Your task to perform on an android device: What's the weather today? Image 0: 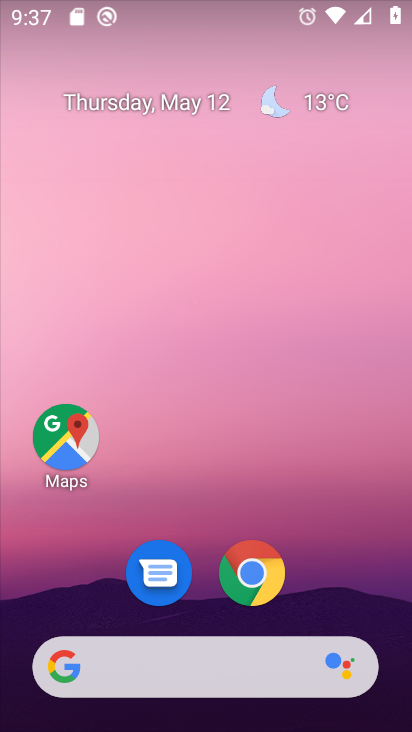
Step 0: click (310, 103)
Your task to perform on an android device: What's the weather today? Image 1: 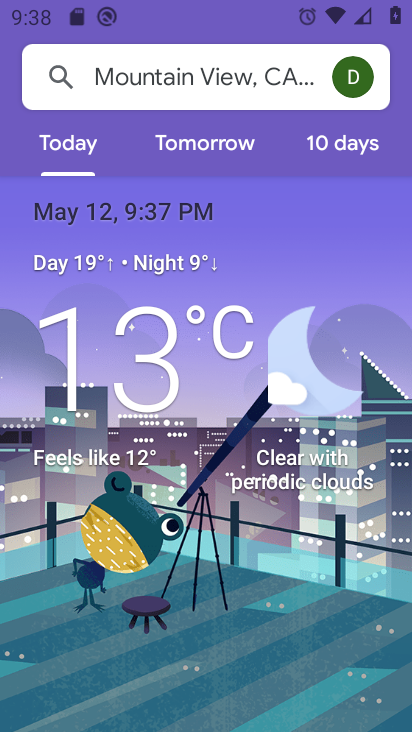
Step 1: task complete